Your task to perform on an android device: Go to Reddit.com Image 0: 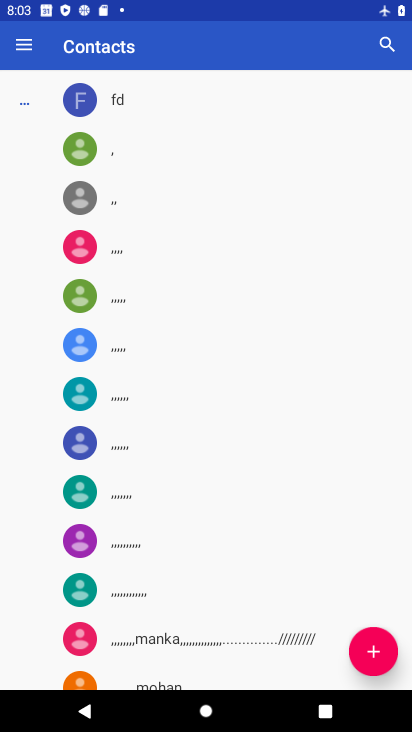
Step 0: press home button
Your task to perform on an android device: Go to Reddit.com Image 1: 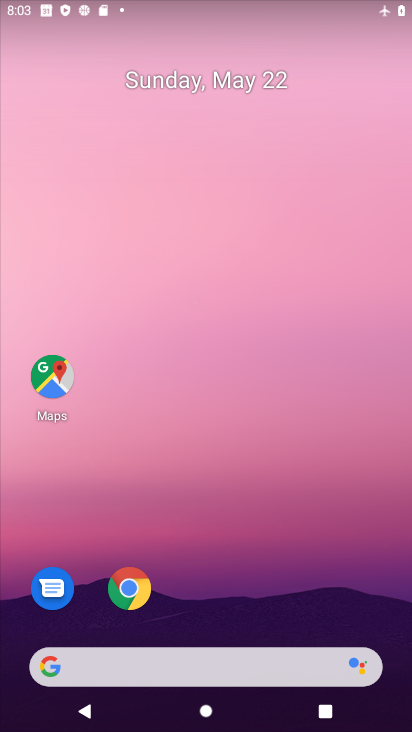
Step 1: click (121, 587)
Your task to perform on an android device: Go to Reddit.com Image 2: 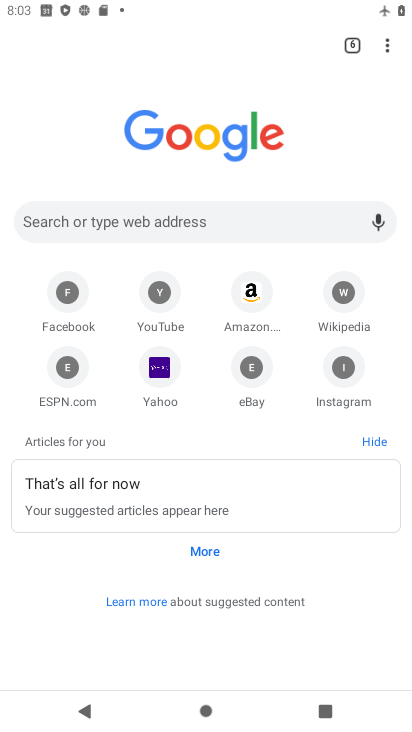
Step 2: click (137, 209)
Your task to perform on an android device: Go to Reddit.com Image 3: 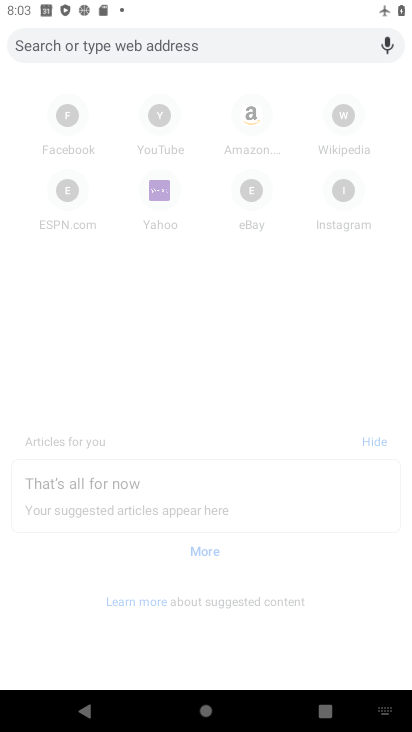
Step 3: type "reddit.com"
Your task to perform on an android device: Go to Reddit.com Image 4: 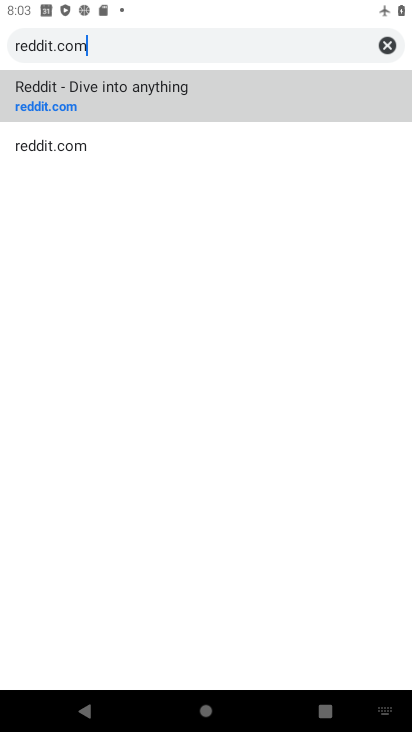
Step 4: click (56, 148)
Your task to perform on an android device: Go to Reddit.com Image 5: 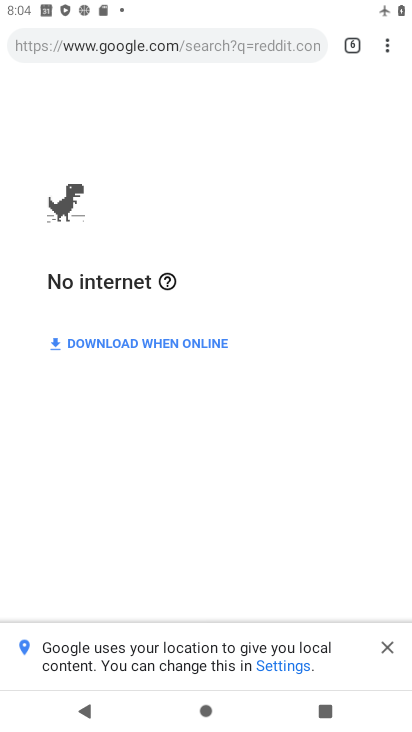
Step 5: task complete